Your task to perform on an android device: turn off data saver in the chrome app Image 0: 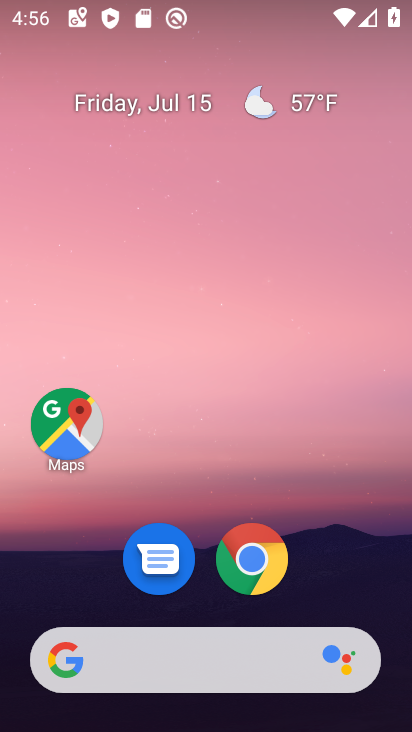
Step 0: click (254, 578)
Your task to perform on an android device: turn off data saver in the chrome app Image 1: 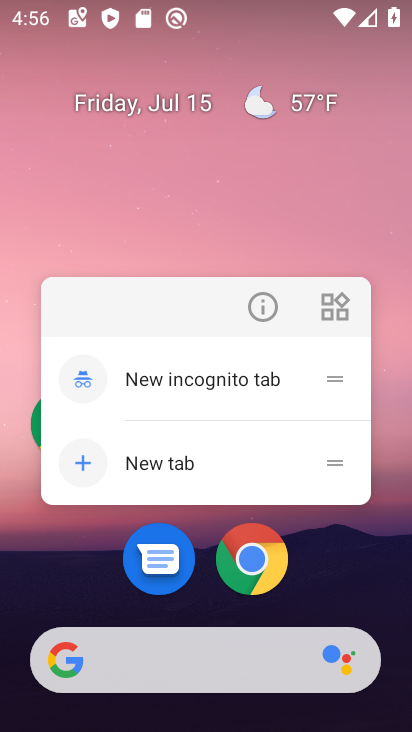
Step 1: click (254, 550)
Your task to perform on an android device: turn off data saver in the chrome app Image 2: 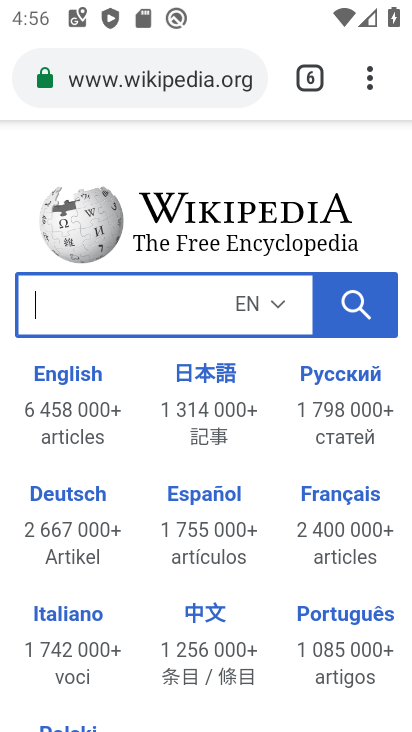
Step 2: drag from (370, 68) to (115, 602)
Your task to perform on an android device: turn off data saver in the chrome app Image 3: 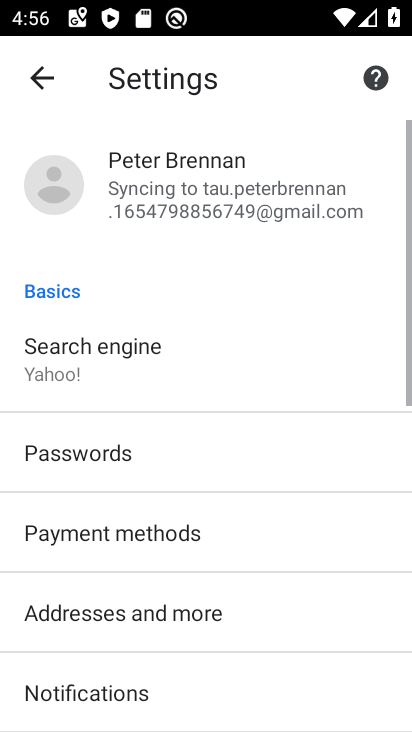
Step 3: drag from (85, 642) to (190, 77)
Your task to perform on an android device: turn off data saver in the chrome app Image 4: 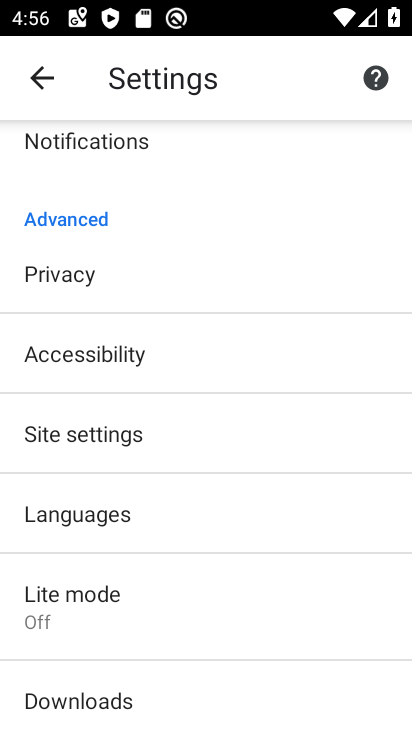
Step 4: click (76, 613)
Your task to perform on an android device: turn off data saver in the chrome app Image 5: 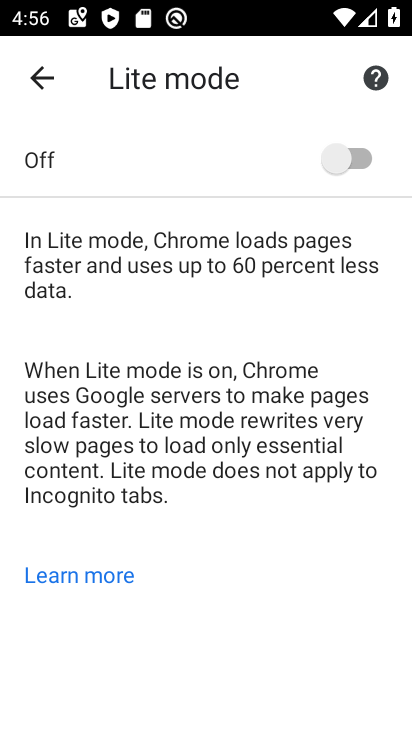
Step 5: task complete